Your task to perform on an android device: turn on data saver in the chrome app Image 0: 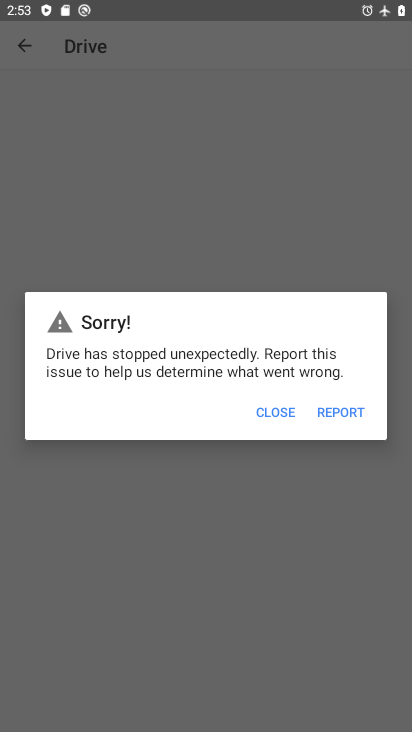
Step 0: press home button
Your task to perform on an android device: turn on data saver in the chrome app Image 1: 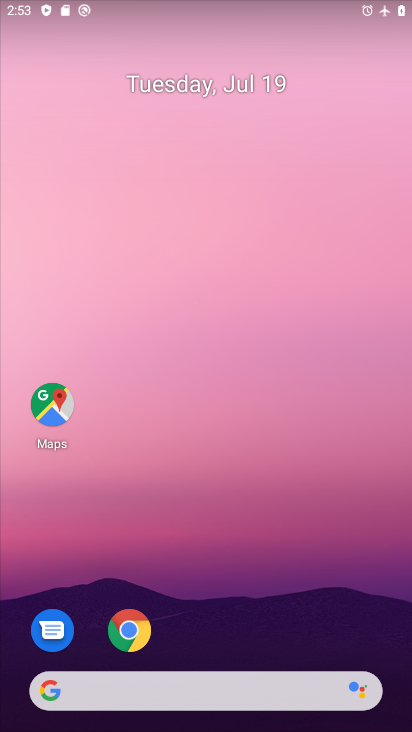
Step 1: drag from (292, 602) to (296, 565)
Your task to perform on an android device: turn on data saver in the chrome app Image 2: 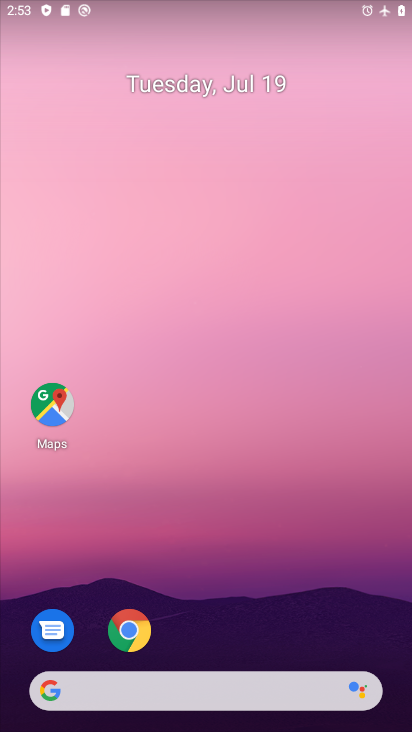
Step 2: click (143, 633)
Your task to perform on an android device: turn on data saver in the chrome app Image 3: 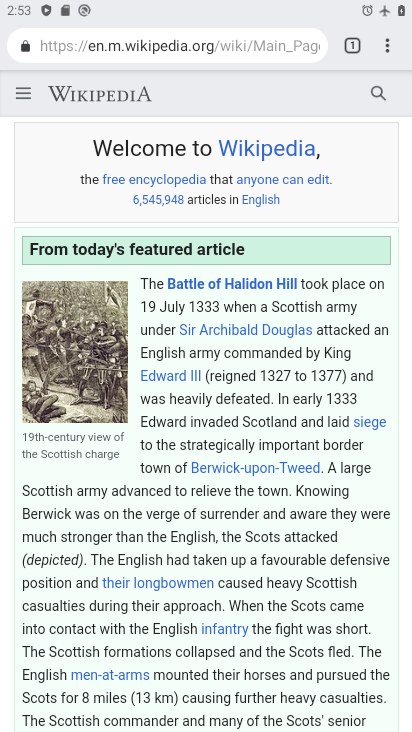
Step 3: click (383, 43)
Your task to perform on an android device: turn on data saver in the chrome app Image 4: 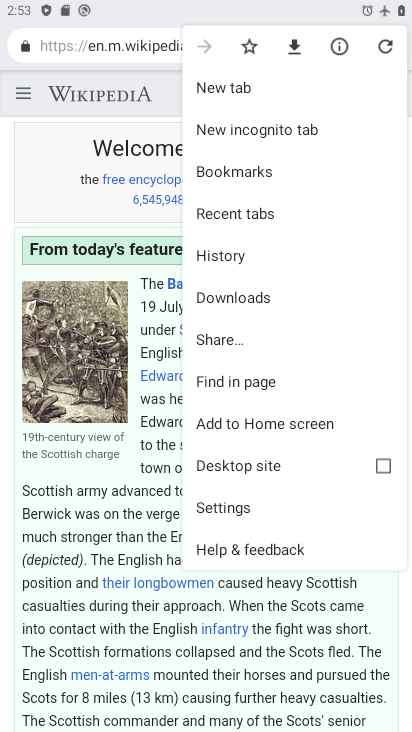
Step 4: click (252, 503)
Your task to perform on an android device: turn on data saver in the chrome app Image 5: 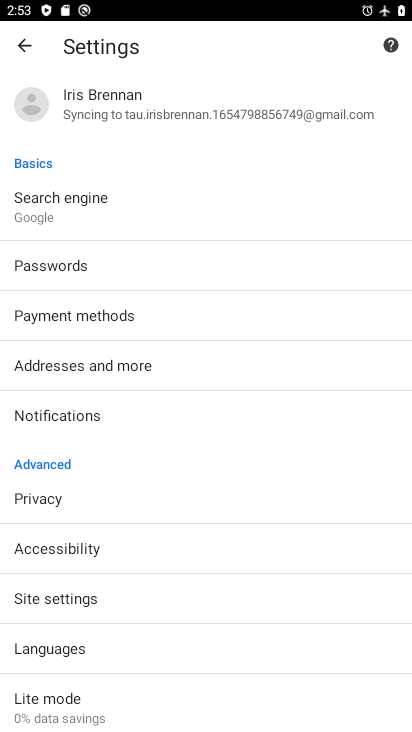
Step 5: click (119, 709)
Your task to perform on an android device: turn on data saver in the chrome app Image 6: 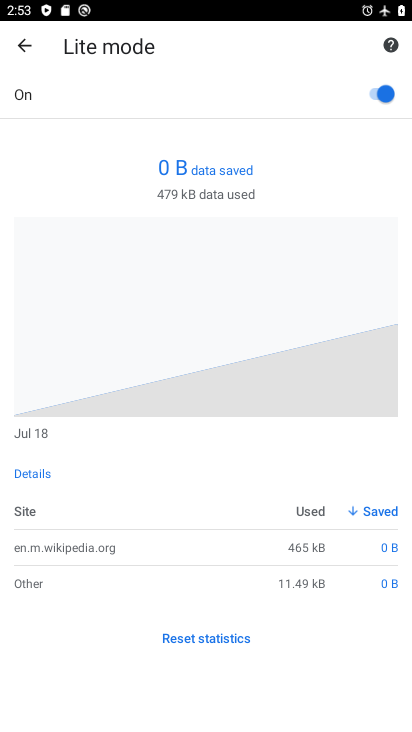
Step 6: task complete